Your task to perform on an android device: Open wifi settings Image 0: 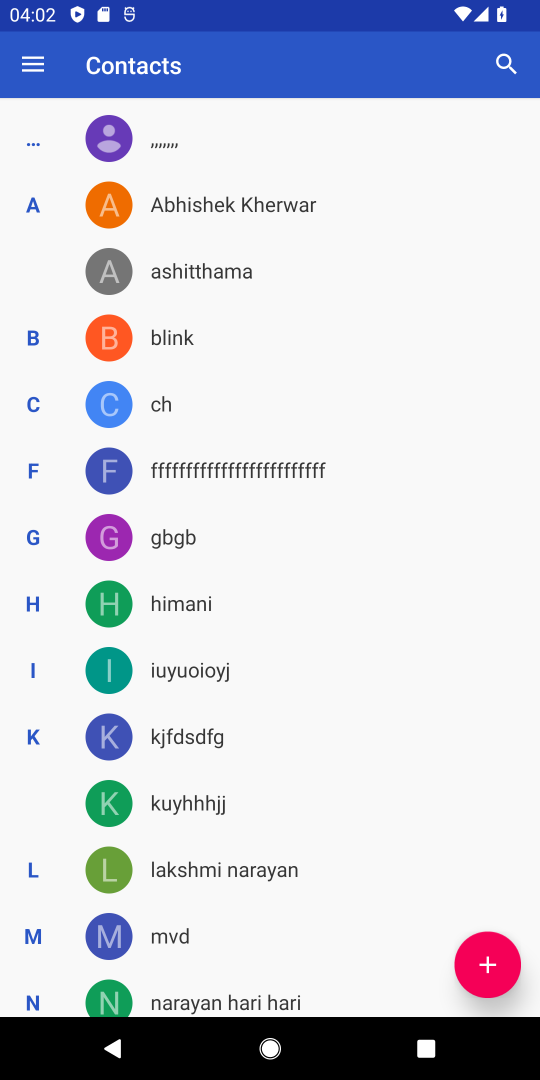
Step 0: press home button
Your task to perform on an android device: Open wifi settings Image 1: 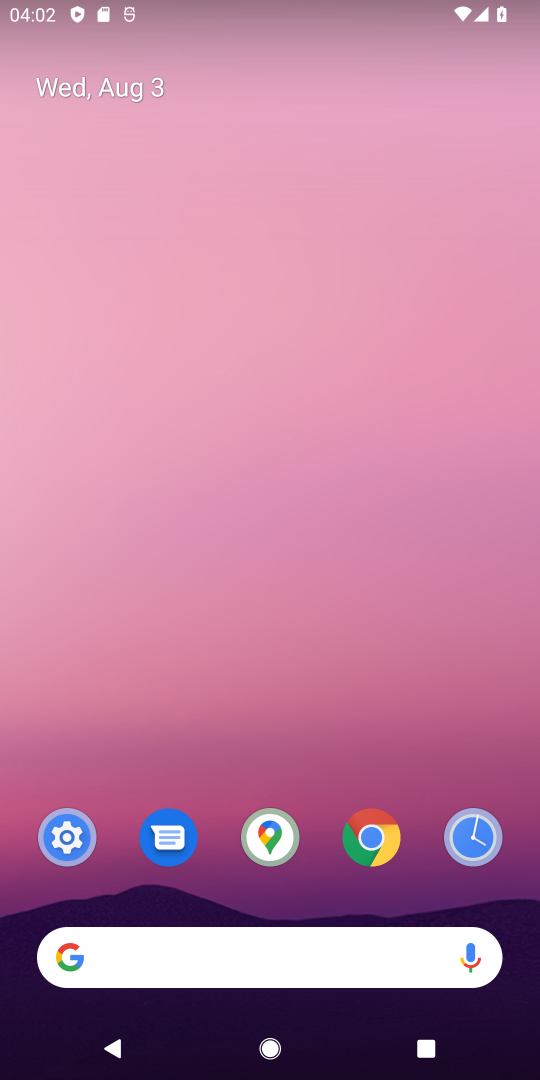
Step 1: drag from (426, 898) to (355, 147)
Your task to perform on an android device: Open wifi settings Image 2: 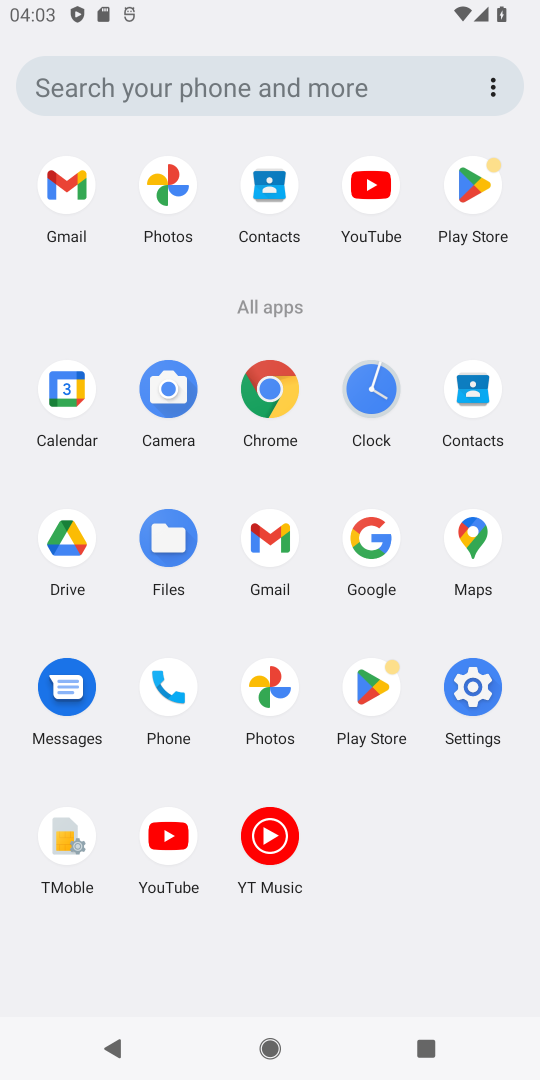
Step 2: click (476, 685)
Your task to perform on an android device: Open wifi settings Image 3: 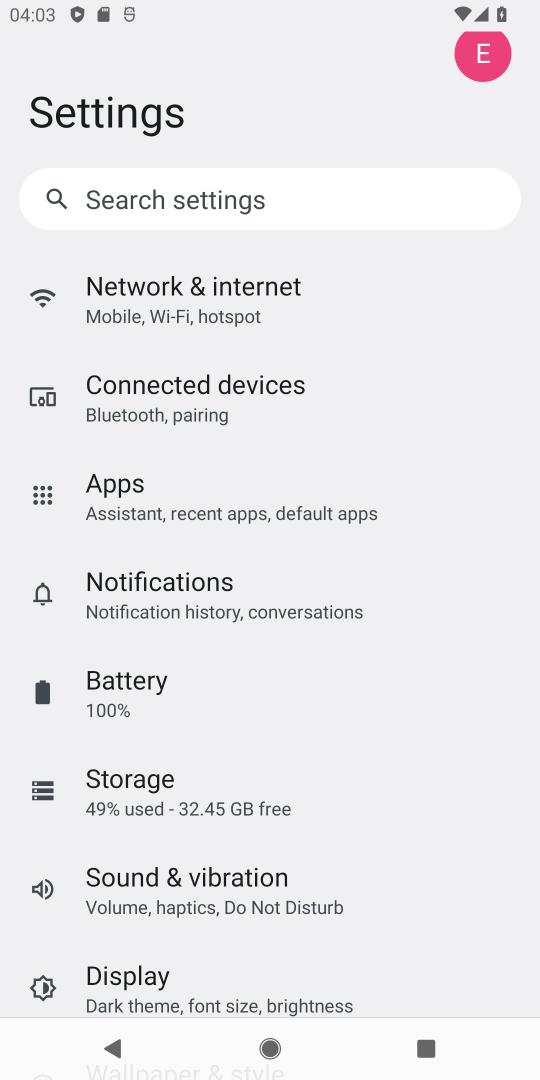
Step 3: click (147, 284)
Your task to perform on an android device: Open wifi settings Image 4: 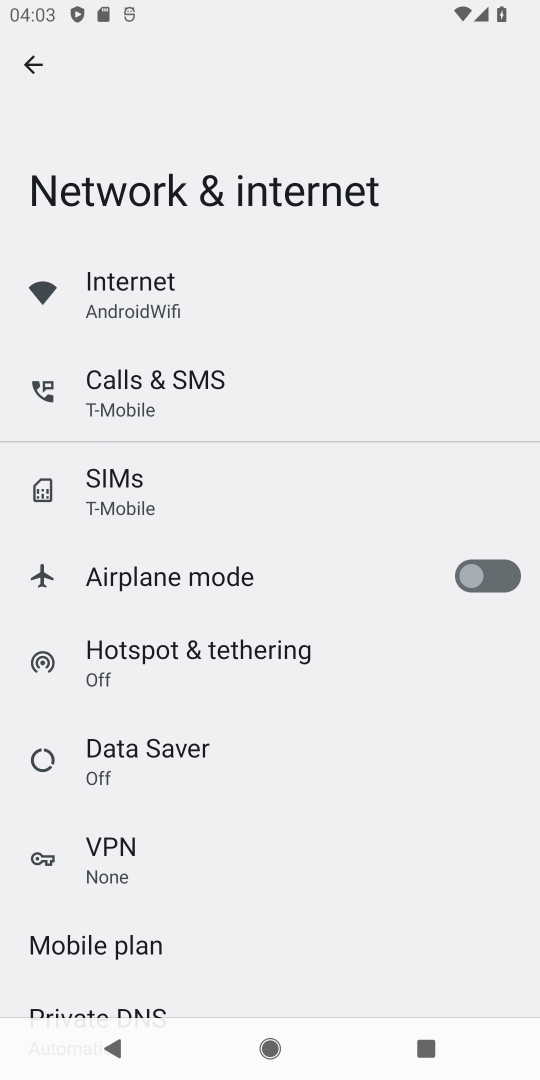
Step 4: click (126, 282)
Your task to perform on an android device: Open wifi settings Image 5: 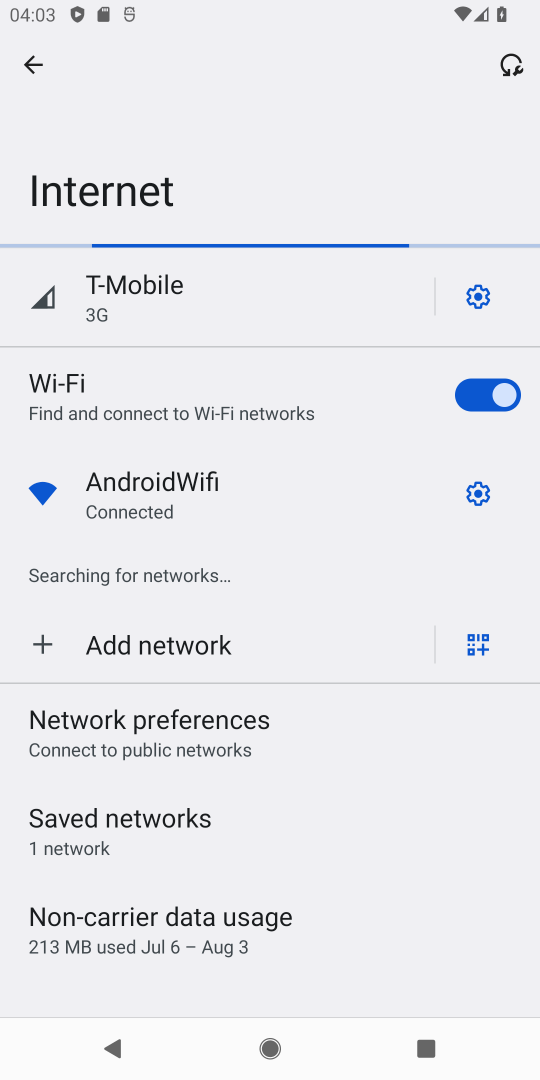
Step 5: click (478, 495)
Your task to perform on an android device: Open wifi settings Image 6: 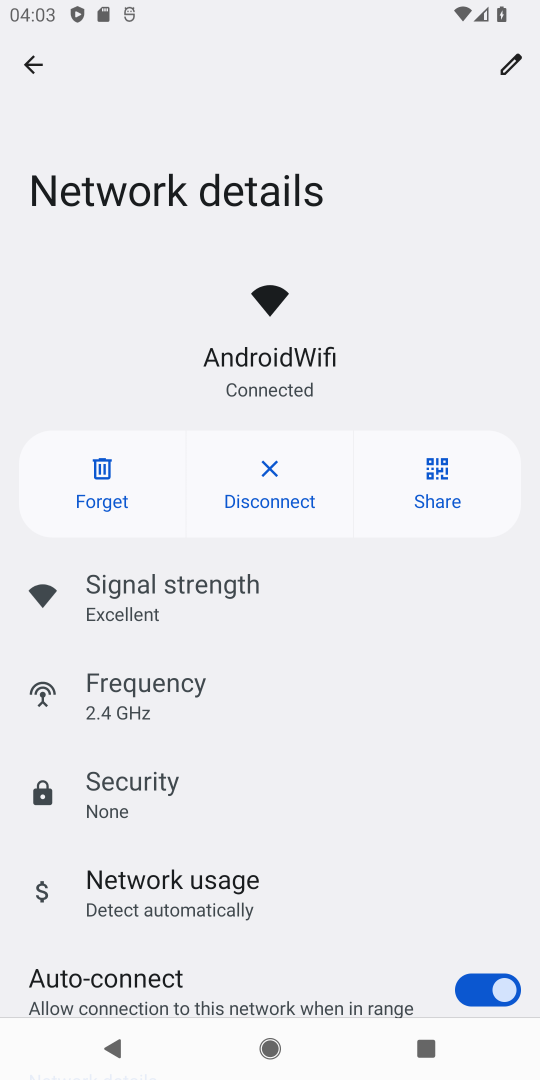
Step 6: task complete